Your task to perform on an android device: Open the calendar and show me this week's events Image 0: 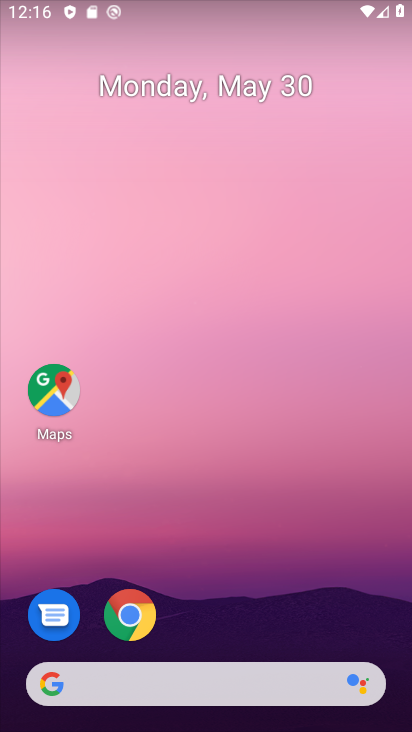
Step 0: drag from (198, 619) to (299, 61)
Your task to perform on an android device: Open the calendar and show me this week's events Image 1: 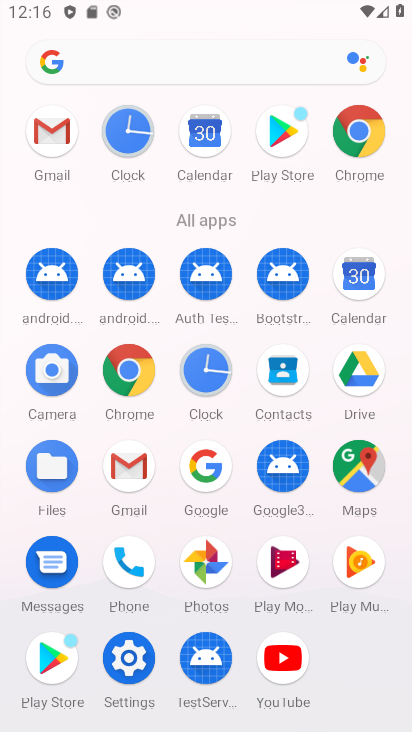
Step 1: click (358, 273)
Your task to perform on an android device: Open the calendar and show me this week's events Image 2: 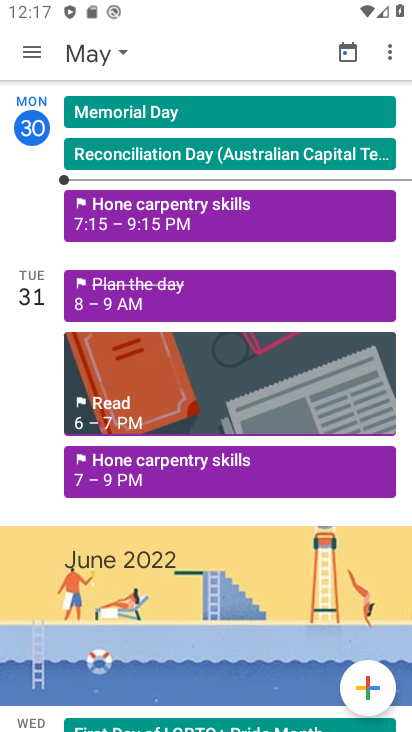
Step 2: click (144, 473)
Your task to perform on an android device: Open the calendar and show me this week's events Image 3: 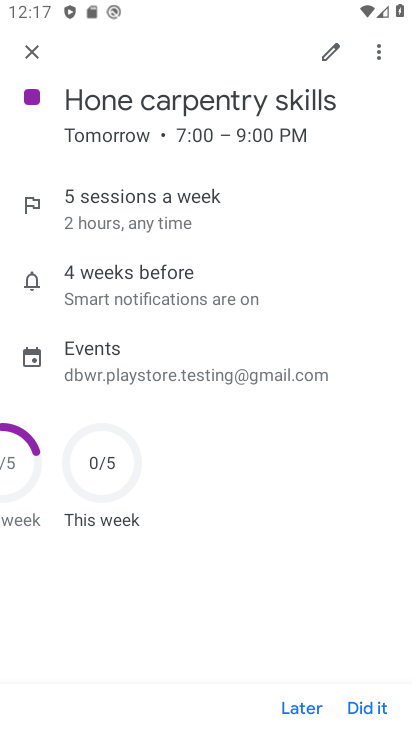
Step 3: task complete